Your task to perform on an android device: Do I have any events tomorrow? Image 0: 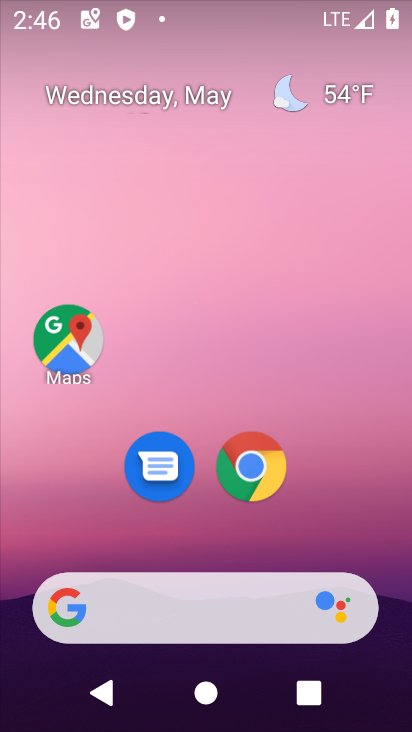
Step 0: drag from (382, 565) to (334, 187)
Your task to perform on an android device: Do I have any events tomorrow? Image 1: 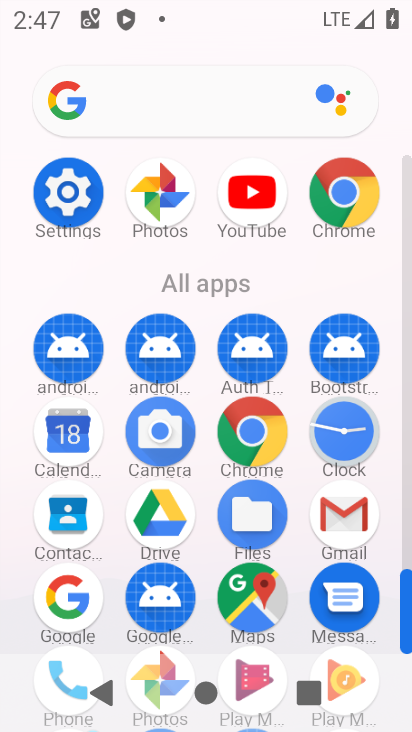
Step 1: click (80, 446)
Your task to perform on an android device: Do I have any events tomorrow? Image 2: 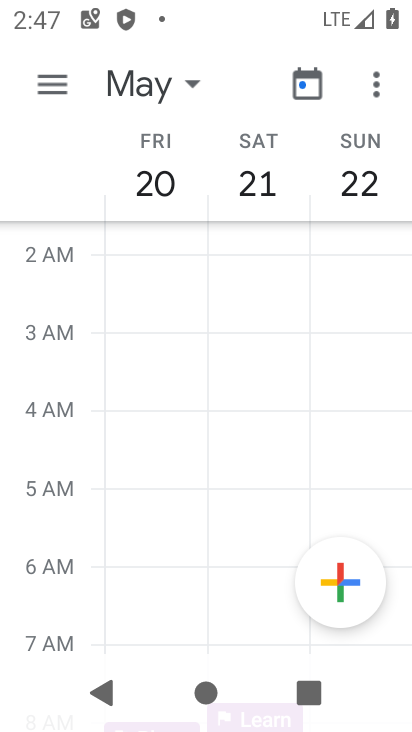
Step 2: click (157, 82)
Your task to perform on an android device: Do I have any events tomorrow? Image 3: 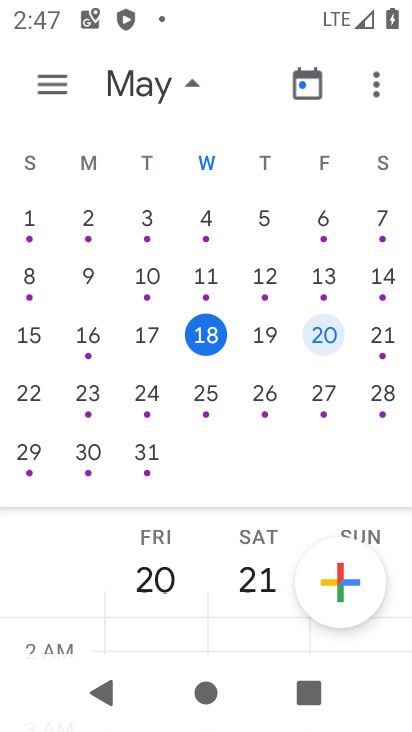
Step 3: click (257, 343)
Your task to perform on an android device: Do I have any events tomorrow? Image 4: 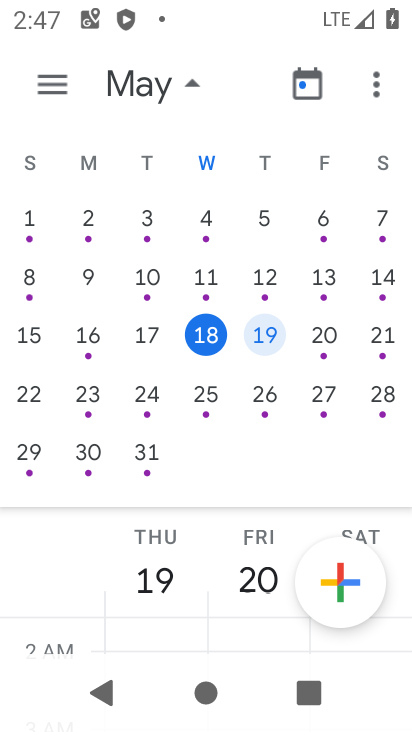
Step 4: click (179, 84)
Your task to perform on an android device: Do I have any events tomorrow? Image 5: 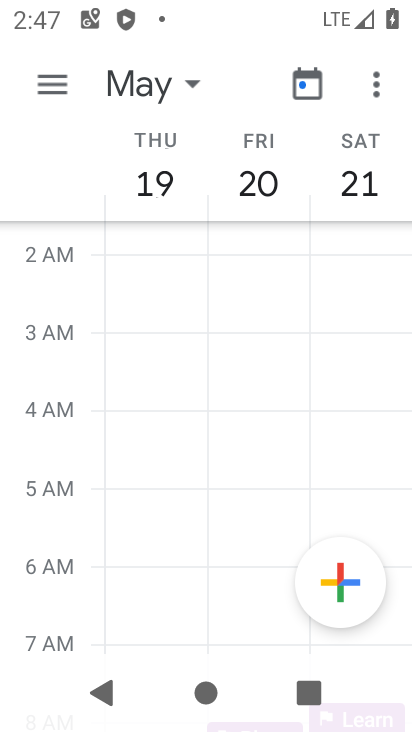
Step 5: task complete